Your task to perform on an android device: change text size in settings app Image 0: 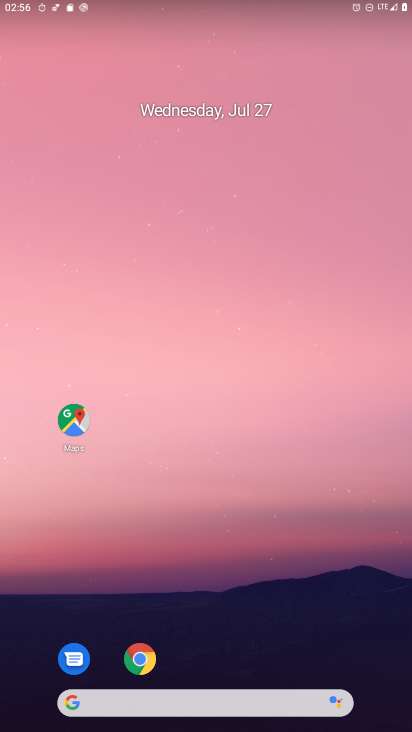
Step 0: drag from (329, 599) to (278, 3)
Your task to perform on an android device: change text size in settings app Image 1: 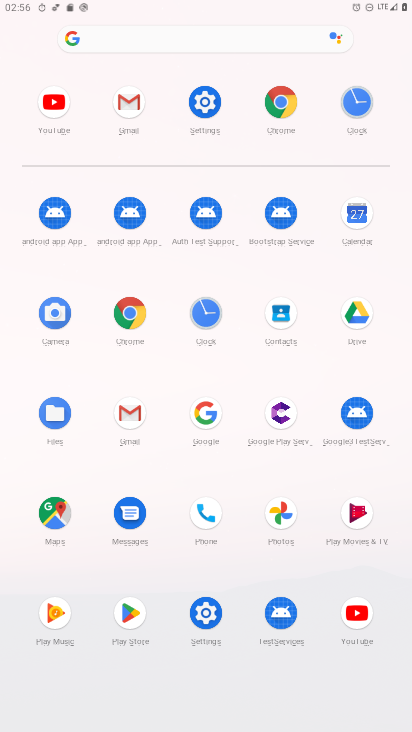
Step 1: click (203, 97)
Your task to perform on an android device: change text size in settings app Image 2: 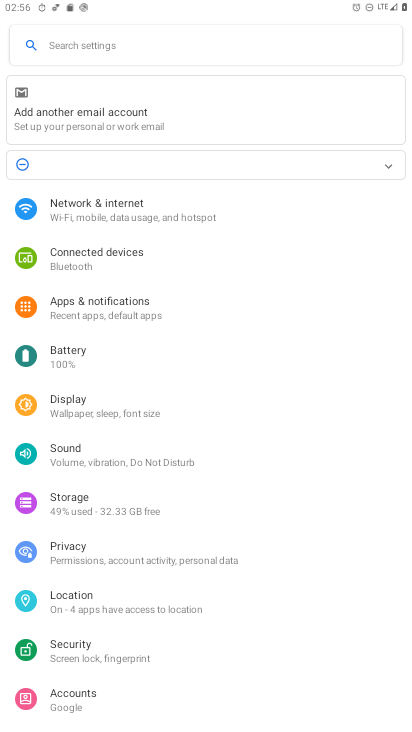
Step 2: drag from (294, 638) to (331, 114)
Your task to perform on an android device: change text size in settings app Image 3: 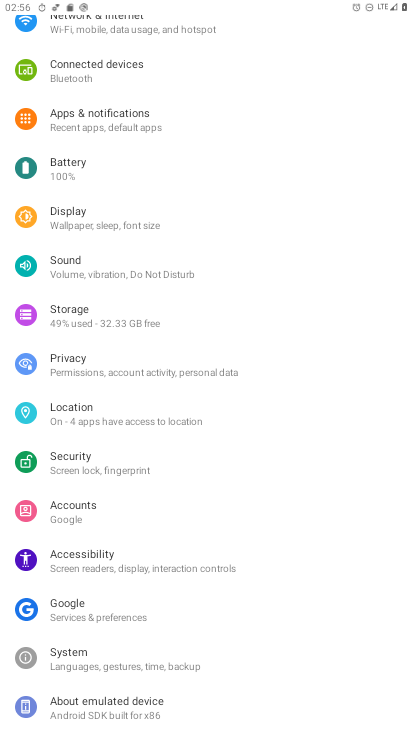
Step 3: click (81, 211)
Your task to perform on an android device: change text size in settings app Image 4: 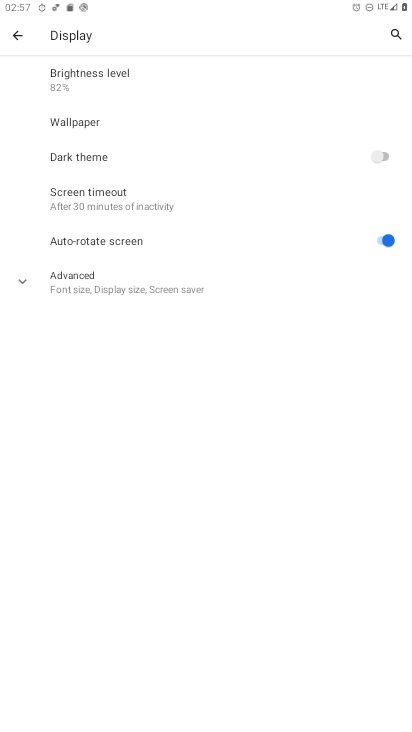
Step 4: click (110, 207)
Your task to perform on an android device: change text size in settings app Image 5: 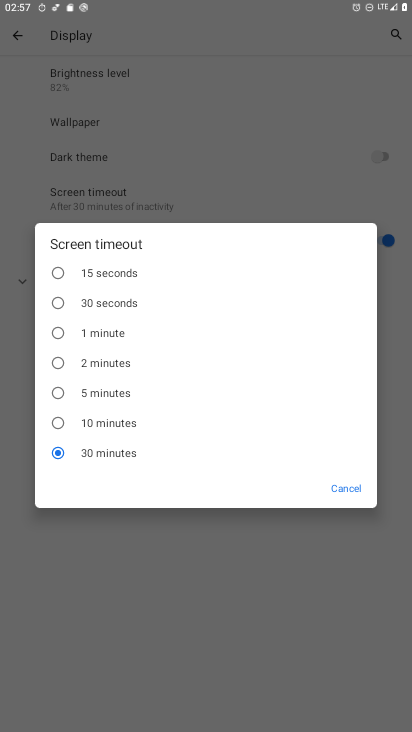
Step 5: click (96, 425)
Your task to perform on an android device: change text size in settings app Image 6: 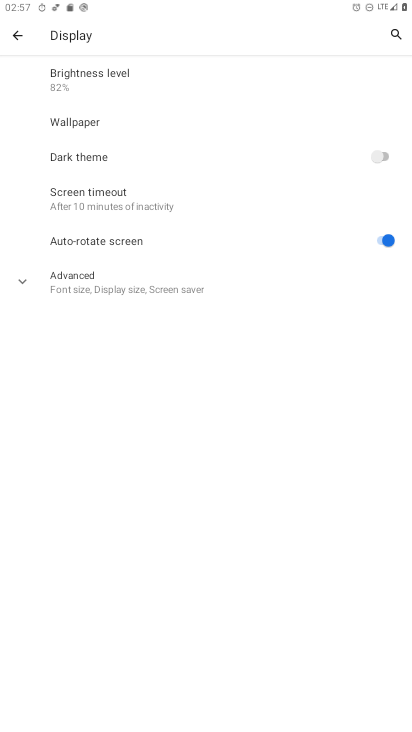
Step 6: task complete